Your task to perform on an android device: Open privacy settings Image 0: 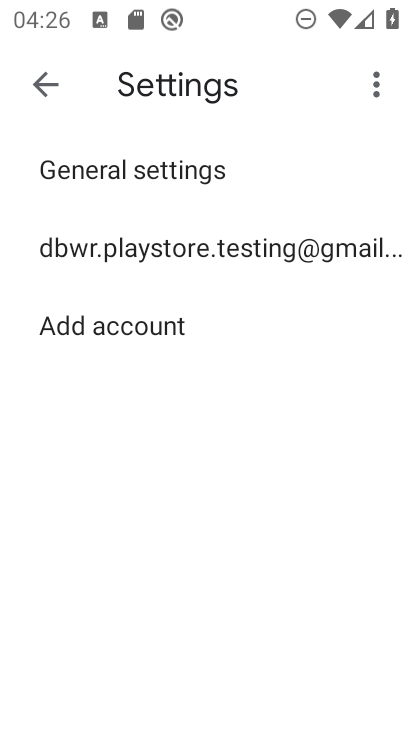
Step 0: press home button
Your task to perform on an android device: Open privacy settings Image 1: 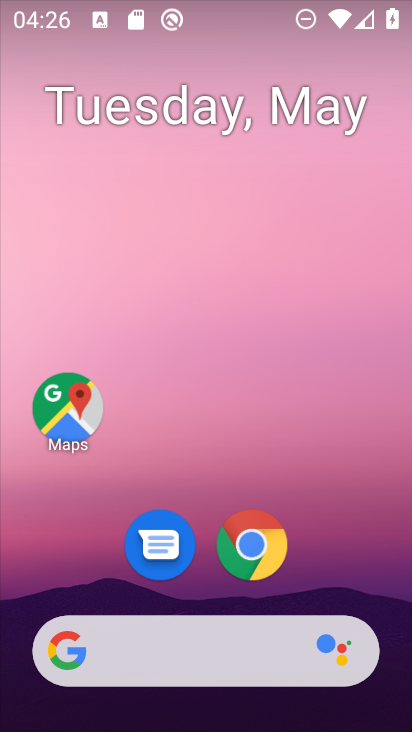
Step 1: drag from (375, 592) to (327, 61)
Your task to perform on an android device: Open privacy settings Image 2: 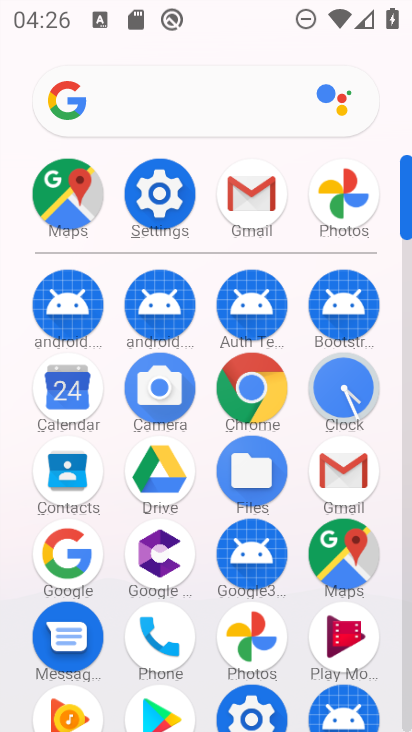
Step 2: click (403, 708)
Your task to perform on an android device: Open privacy settings Image 3: 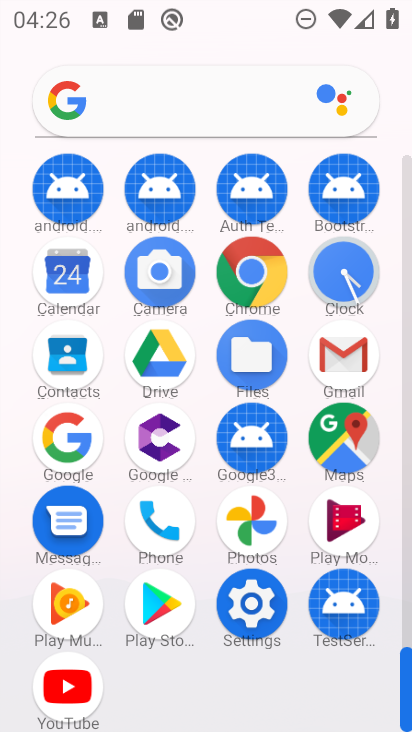
Step 3: click (252, 602)
Your task to perform on an android device: Open privacy settings Image 4: 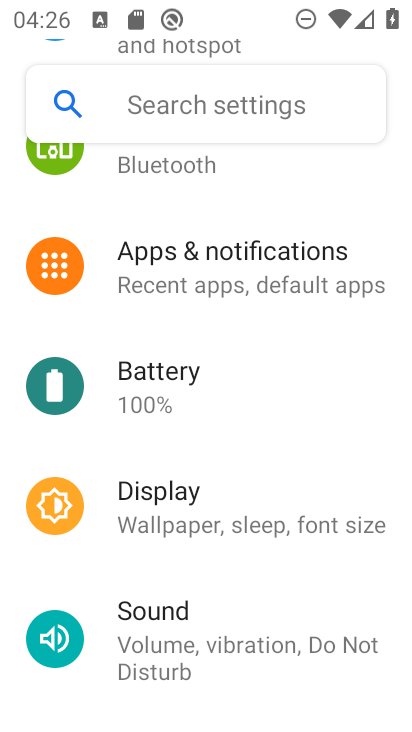
Step 4: drag from (343, 596) to (342, 212)
Your task to perform on an android device: Open privacy settings Image 5: 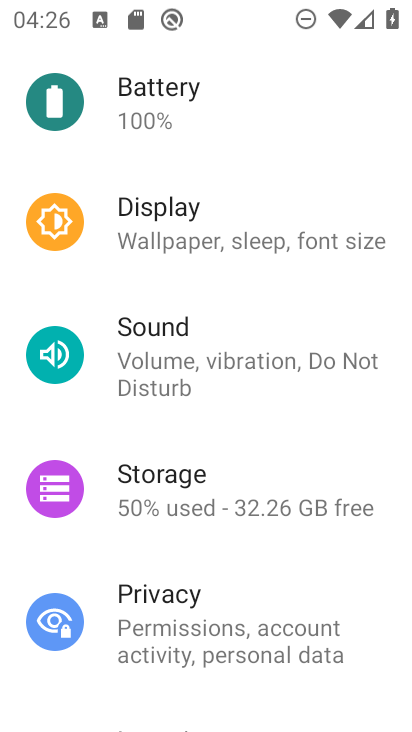
Step 5: click (162, 649)
Your task to perform on an android device: Open privacy settings Image 6: 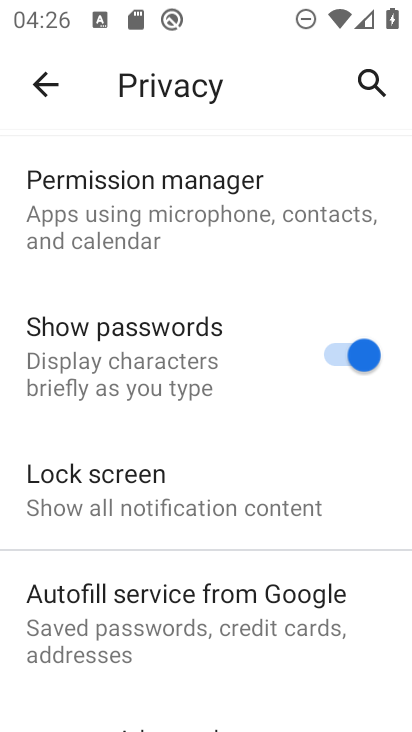
Step 6: drag from (251, 654) to (258, 106)
Your task to perform on an android device: Open privacy settings Image 7: 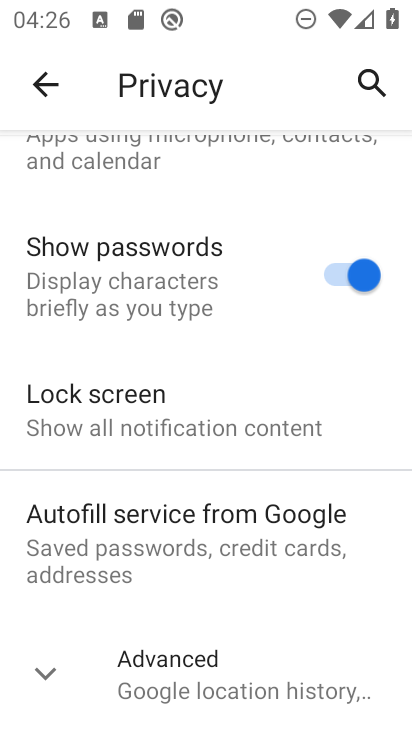
Step 7: click (42, 667)
Your task to perform on an android device: Open privacy settings Image 8: 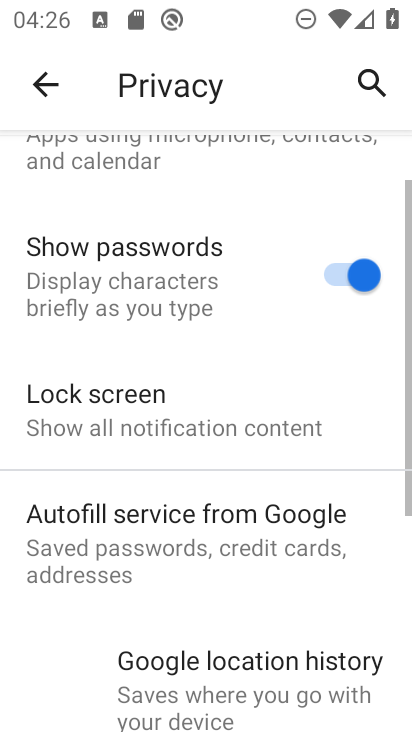
Step 8: task complete